Your task to perform on an android device: check android version Image 0: 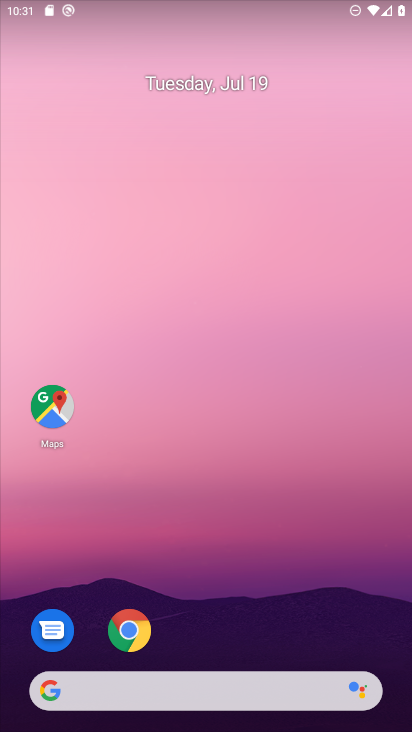
Step 0: drag from (210, 630) to (223, 154)
Your task to perform on an android device: check android version Image 1: 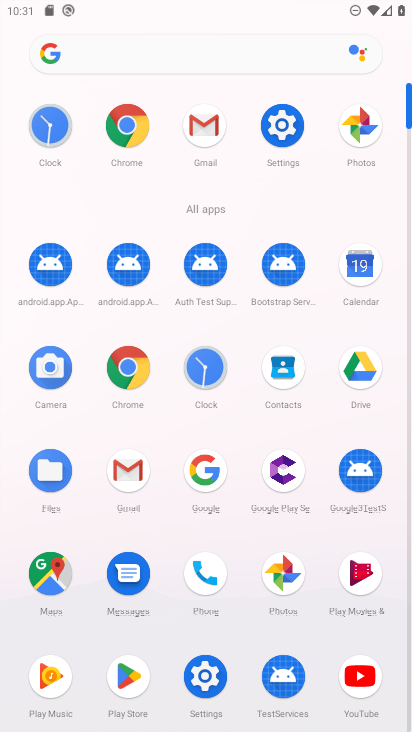
Step 1: click (275, 147)
Your task to perform on an android device: check android version Image 2: 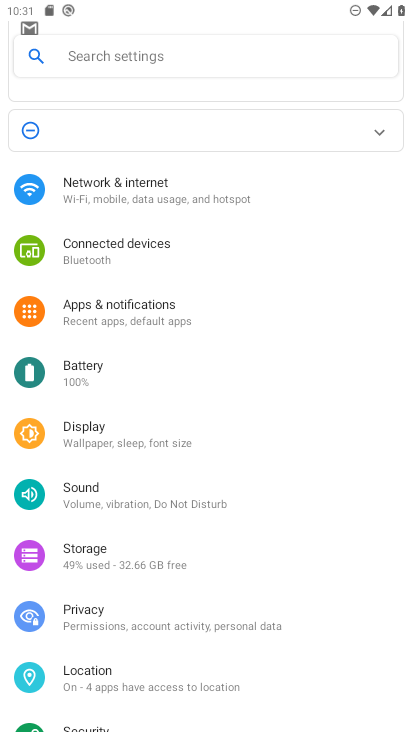
Step 2: drag from (188, 639) to (203, 182)
Your task to perform on an android device: check android version Image 3: 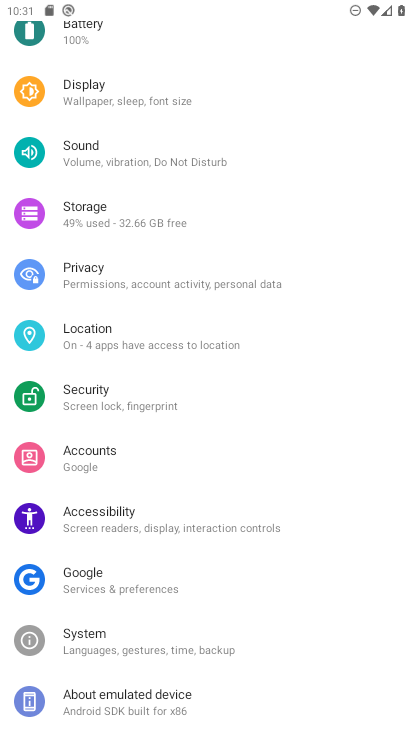
Step 3: click (148, 689)
Your task to perform on an android device: check android version Image 4: 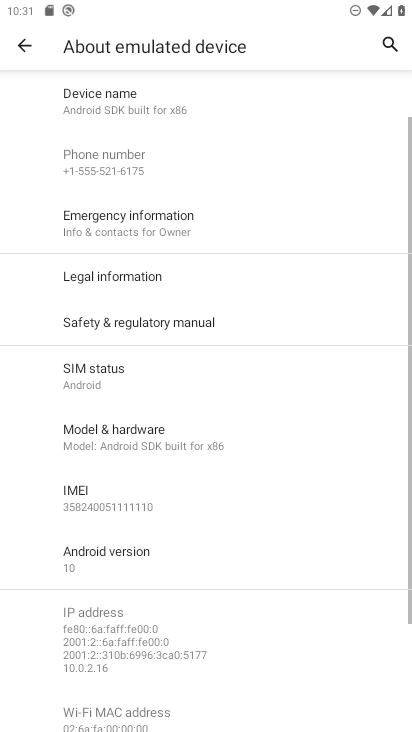
Step 4: click (142, 568)
Your task to perform on an android device: check android version Image 5: 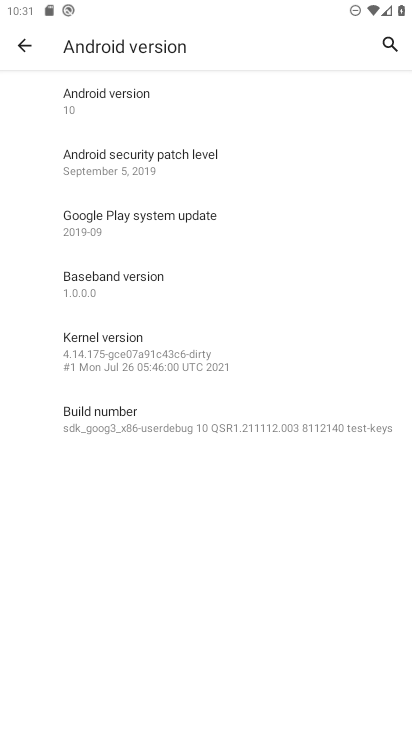
Step 5: click (108, 103)
Your task to perform on an android device: check android version Image 6: 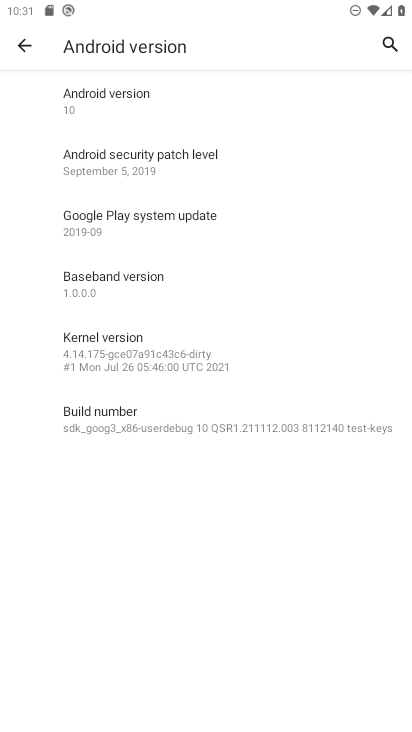
Step 6: task complete